Your task to perform on an android device: uninstall "AliExpress" Image 0: 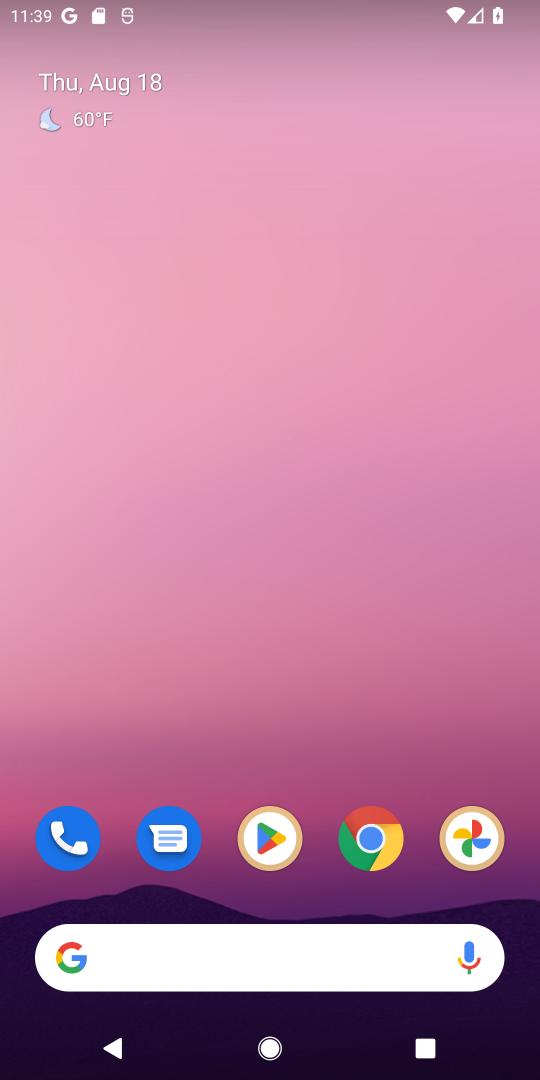
Step 0: click (282, 844)
Your task to perform on an android device: uninstall "AliExpress" Image 1: 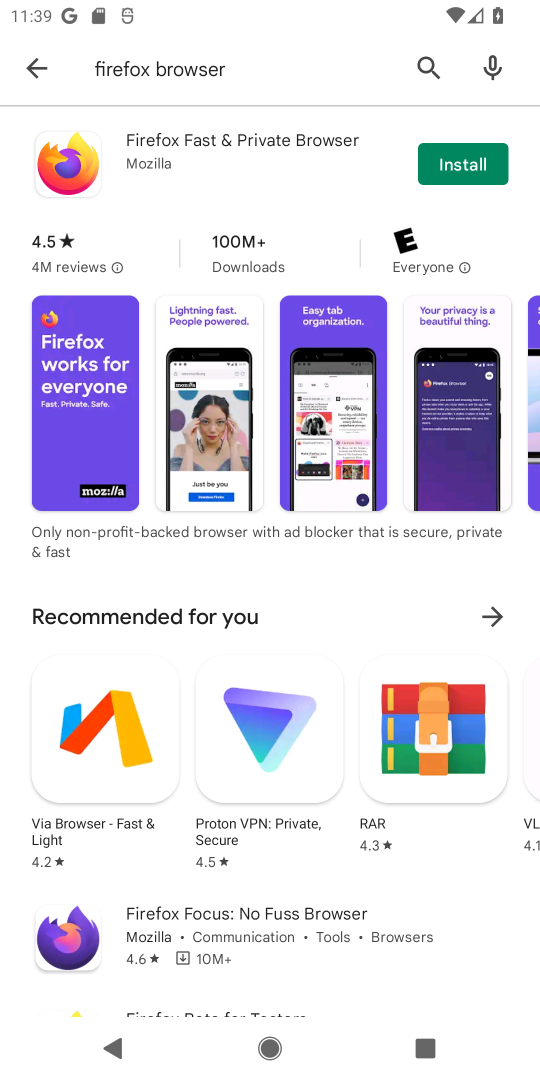
Step 1: click (428, 76)
Your task to perform on an android device: uninstall "AliExpress" Image 2: 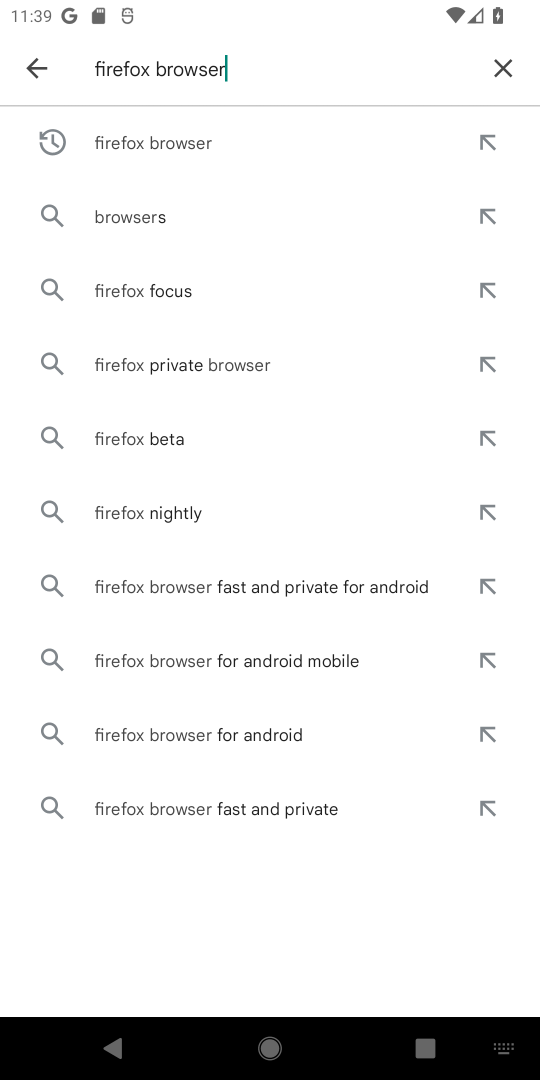
Step 2: click (492, 71)
Your task to perform on an android device: uninstall "AliExpress" Image 3: 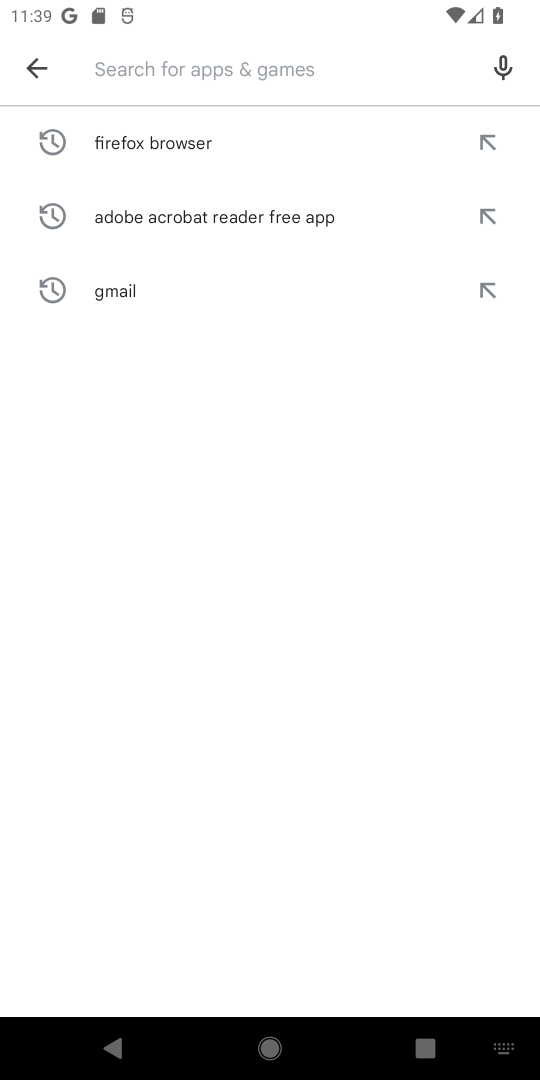
Step 3: type "AliExpress"
Your task to perform on an android device: uninstall "AliExpress" Image 4: 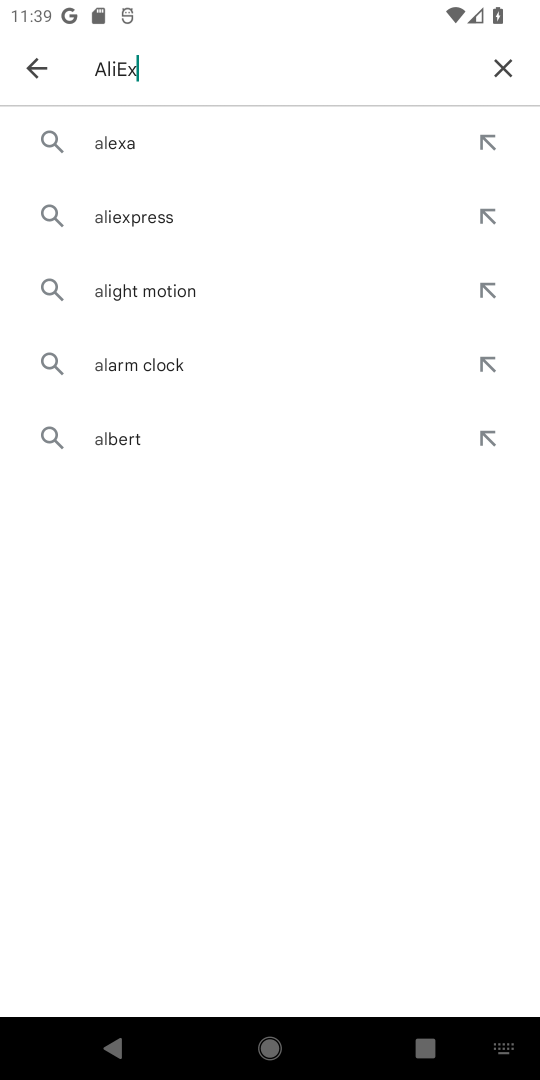
Step 4: type ""
Your task to perform on an android device: uninstall "AliExpress" Image 5: 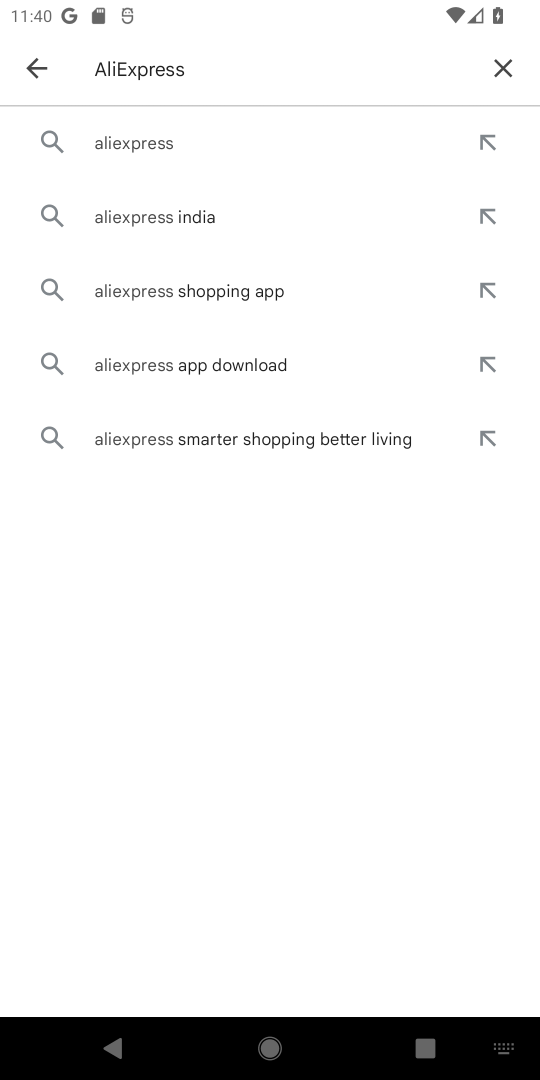
Step 5: click (131, 148)
Your task to perform on an android device: uninstall "AliExpress" Image 6: 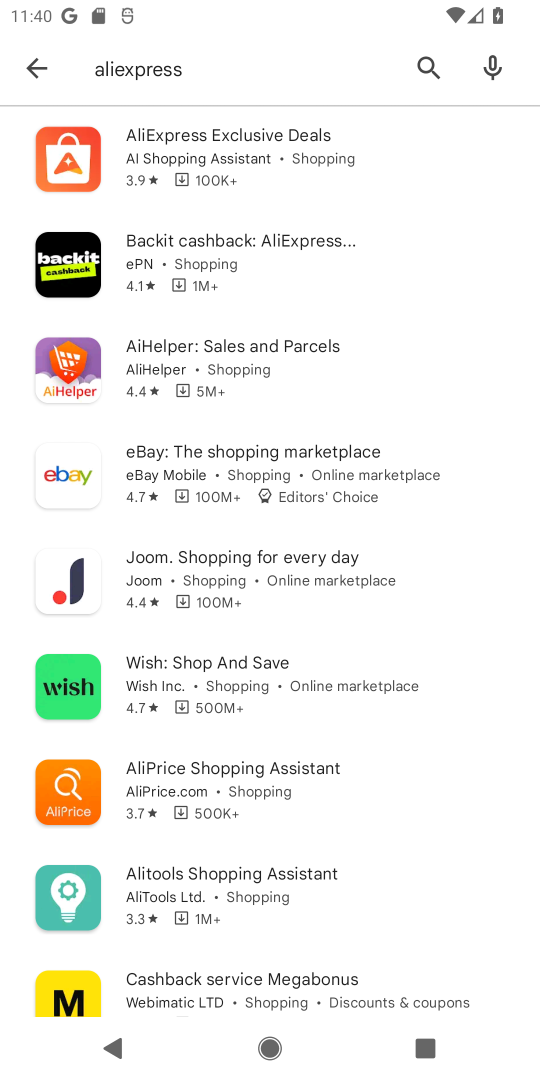
Step 6: click (159, 154)
Your task to perform on an android device: uninstall "AliExpress" Image 7: 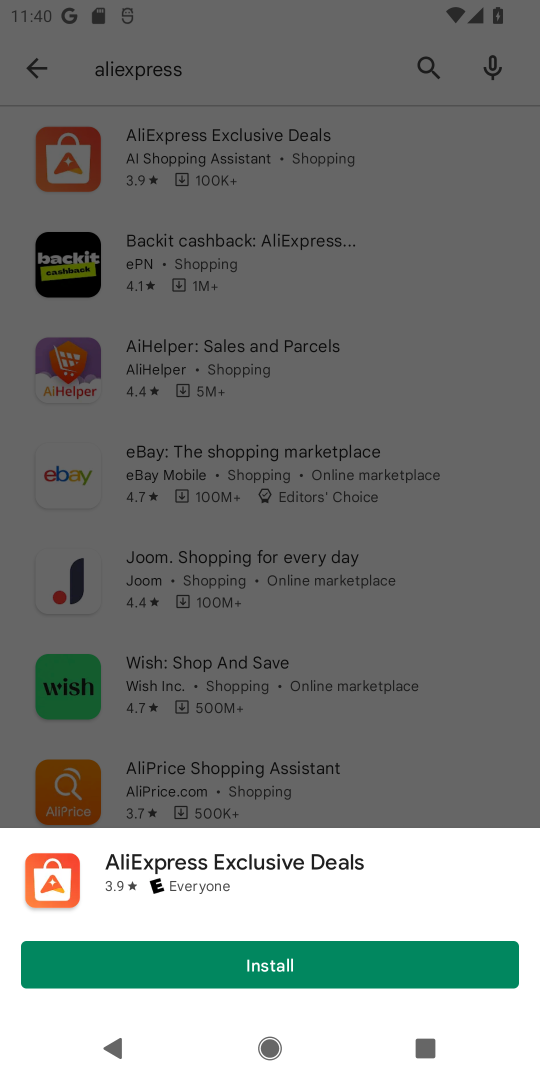
Step 7: task complete